Your task to perform on an android device: Open display settings Image 0: 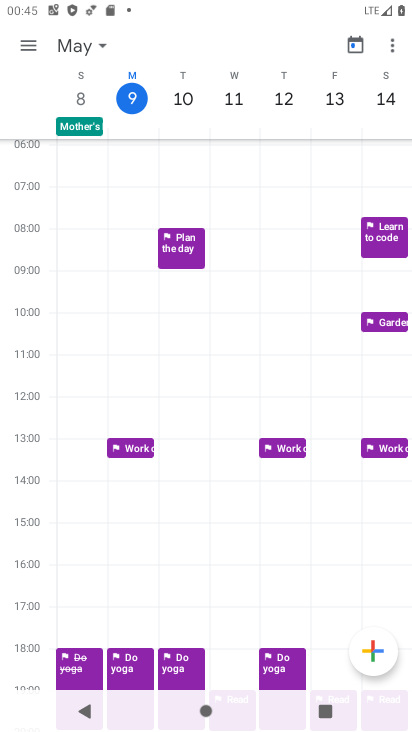
Step 0: press home button
Your task to perform on an android device: Open display settings Image 1: 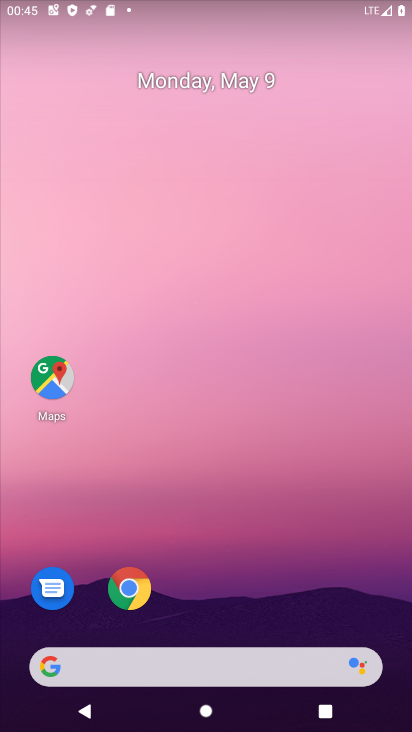
Step 1: drag from (210, 528) to (169, 30)
Your task to perform on an android device: Open display settings Image 2: 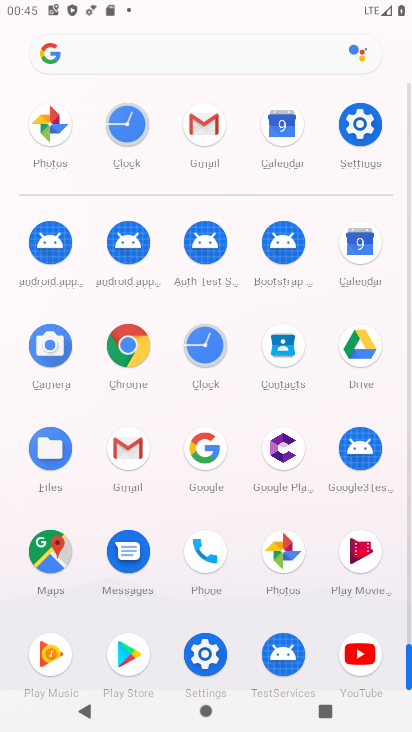
Step 2: click (355, 126)
Your task to perform on an android device: Open display settings Image 3: 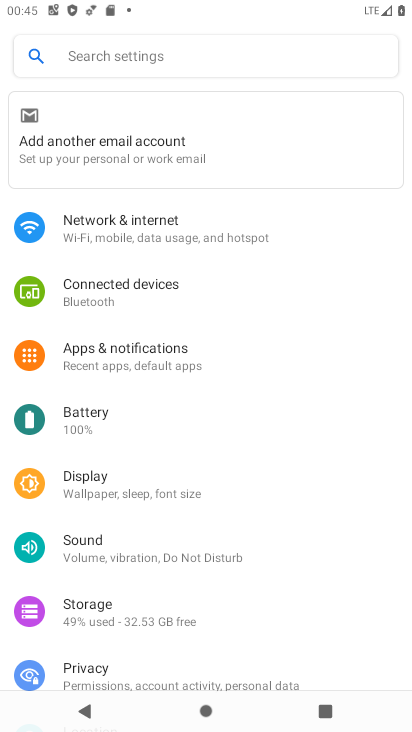
Step 3: click (79, 478)
Your task to perform on an android device: Open display settings Image 4: 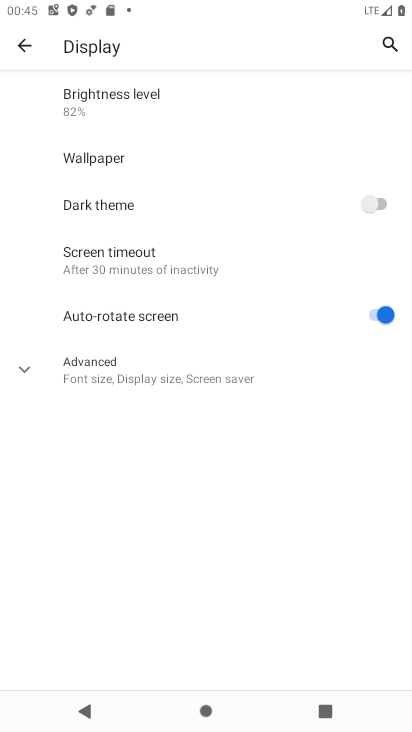
Step 4: task complete